Your task to perform on an android device: Open the map Image 0: 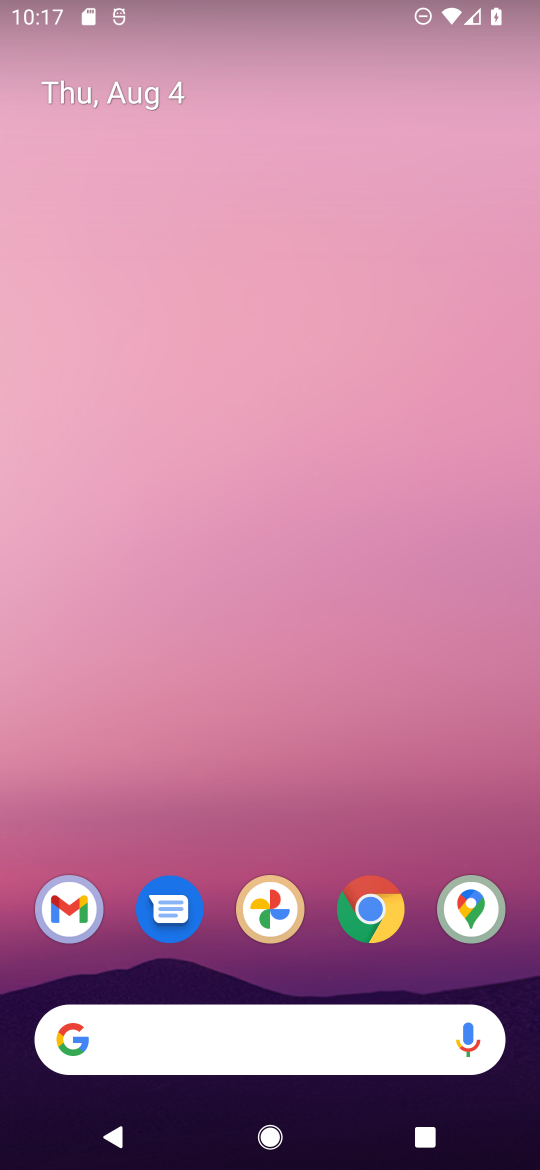
Step 0: click (477, 915)
Your task to perform on an android device: Open the map Image 1: 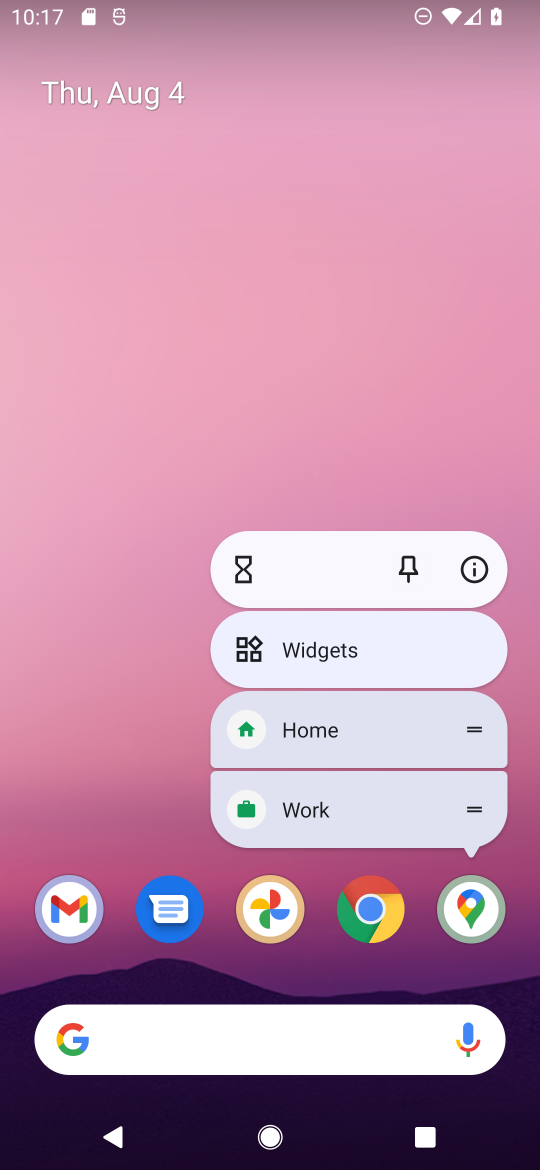
Step 1: click (477, 915)
Your task to perform on an android device: Open the map Image 2: 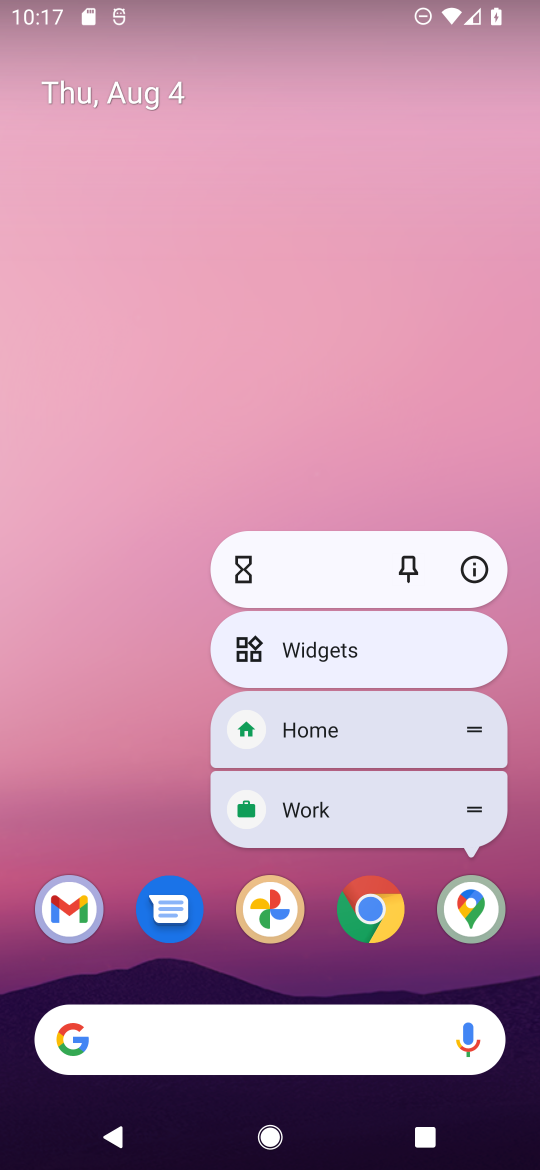
Step 2: click (477, 915)
Your task to perform on an android device: Open the map Image 3: 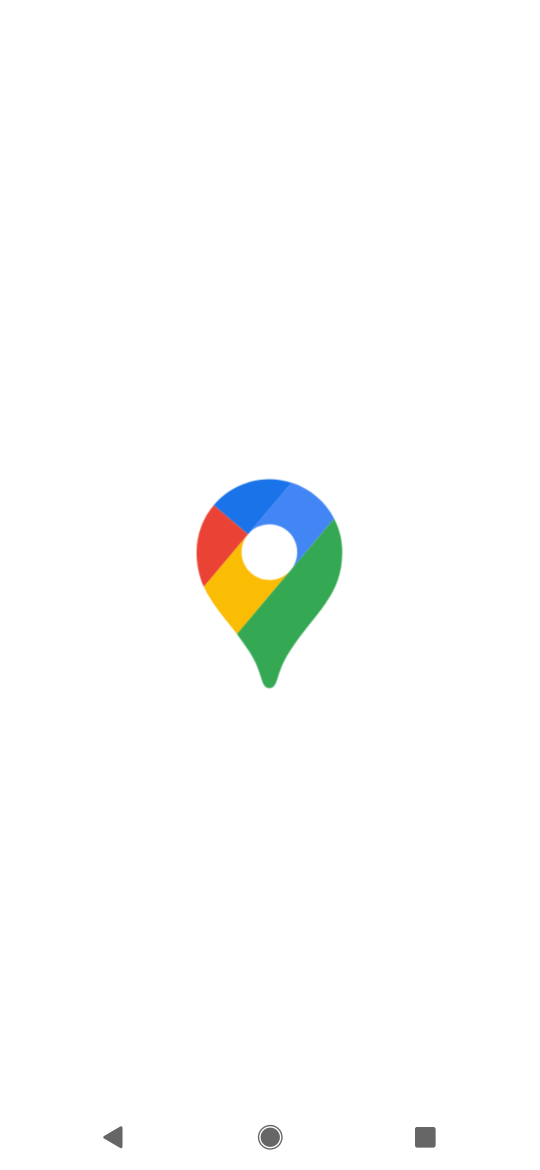
Step 3: task complete